Your task to perform on an android device: Is it going to rain today? Image 0: 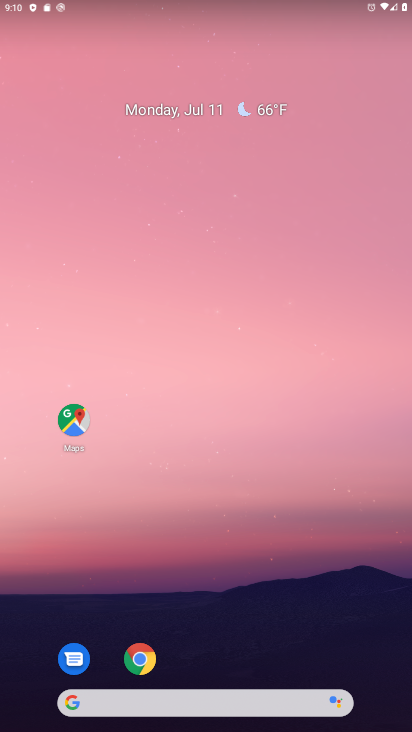
Step 0: click (264, 703)
Your task to perform on an android device: Is it going to rain today? Image 1: 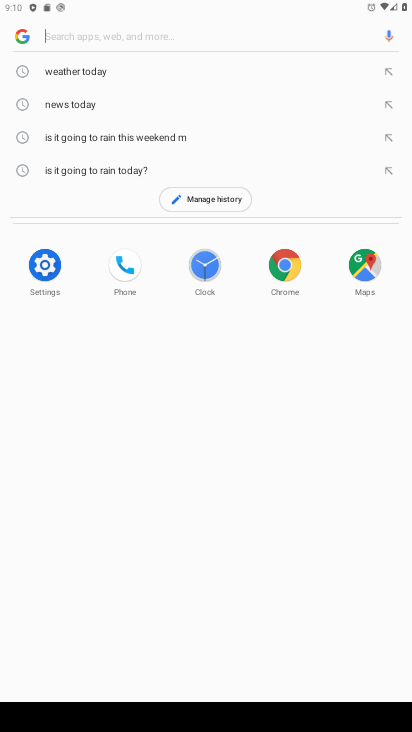
Step 1: click (95, 69)
Your task to perform on an android device: Is it going to rain today? Image 2: 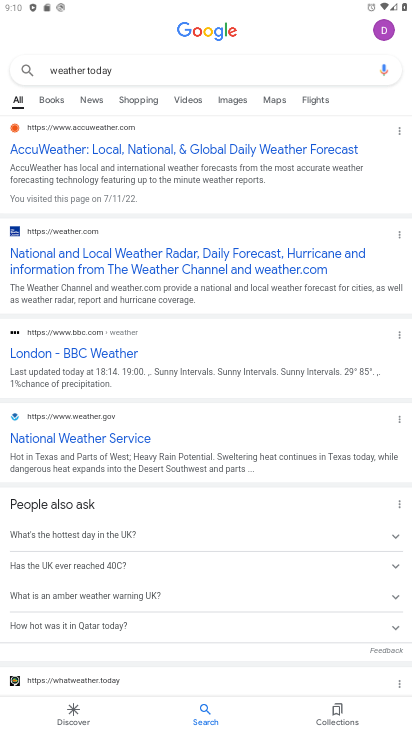
Step 2: task complete